Your task to perform on an android device: open wifi settings Image 0: 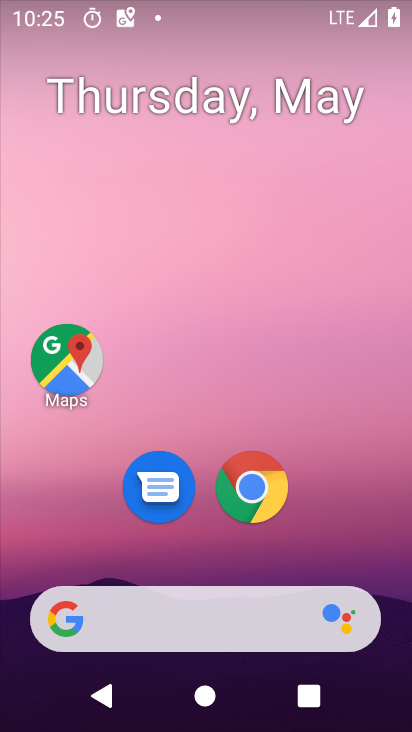
Step 0: drag from (175, 572) to (232, 127)
Your task to perform on an android device: open wifi settings Image 1: 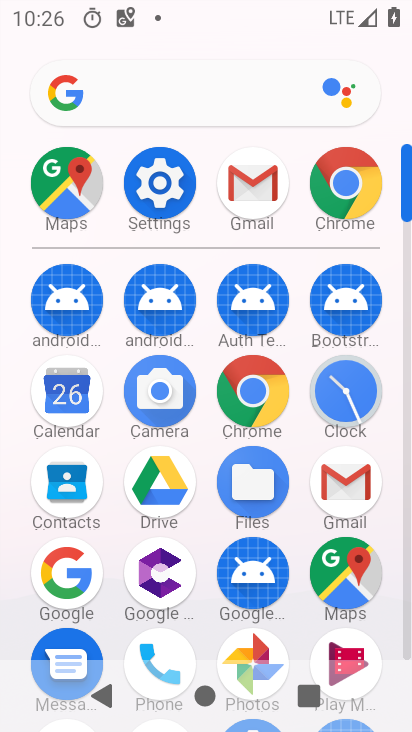
Step 1: click (159, 193)
Your task to perform on an android device: open wifi settings Image 2: 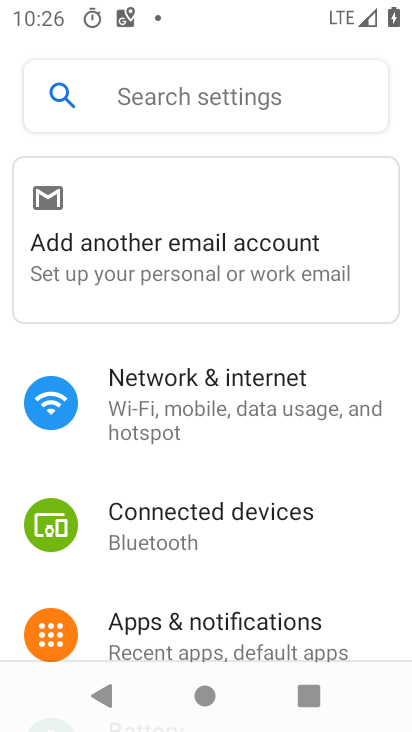
Step 2: click (145, 443)
Your task to perform on an android device: open wifi settings Image 3: 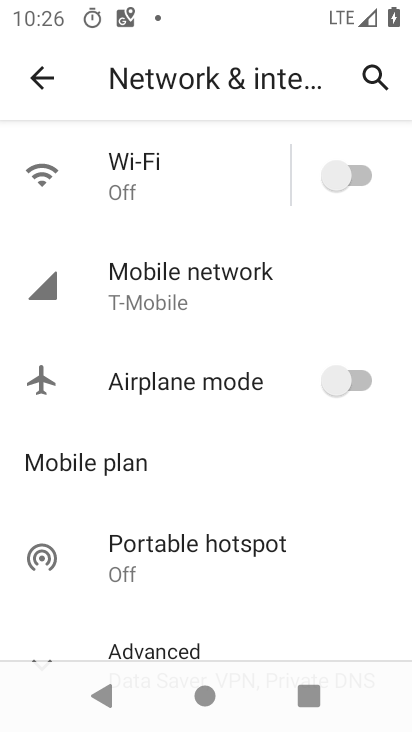
Step 3: click (190, 207)
Your task to perform on an android device: open wifi settings Image 4: 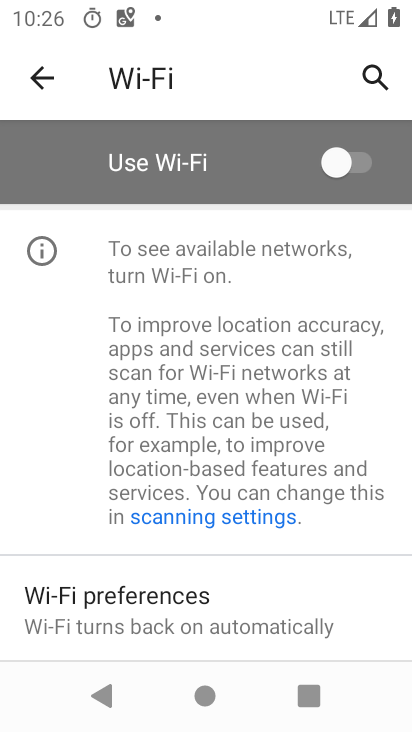
Step 4: task complete